Your task to perform on an android device: Go to Amazon Image 0: 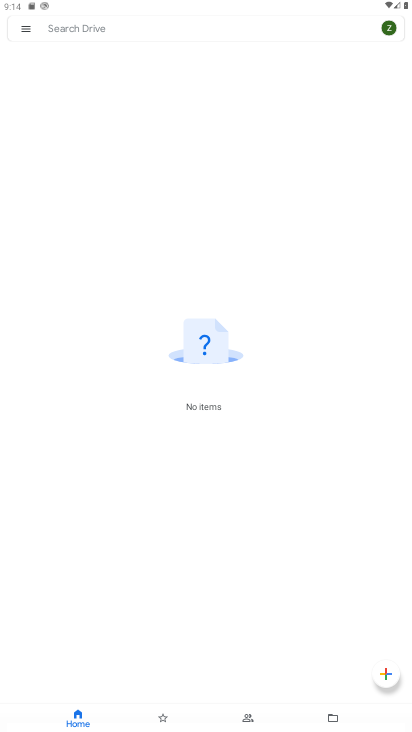
Step 0: press home button
Your task to perform on an android device: Go to Amazon Image 1: 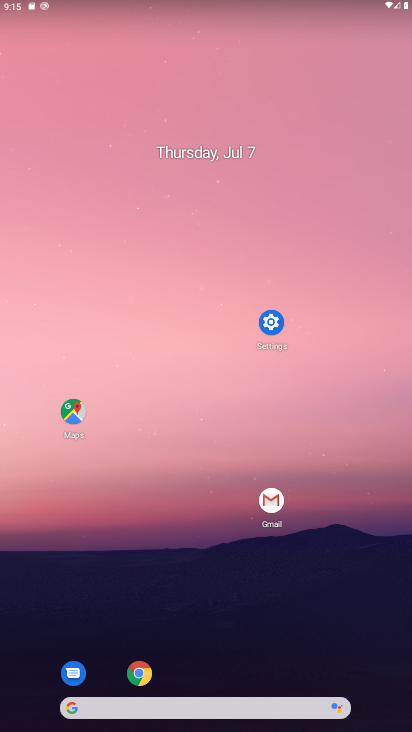
Step 1: click (263, 507)
Your task to perform on an android device: Go to Amazon Image 2: 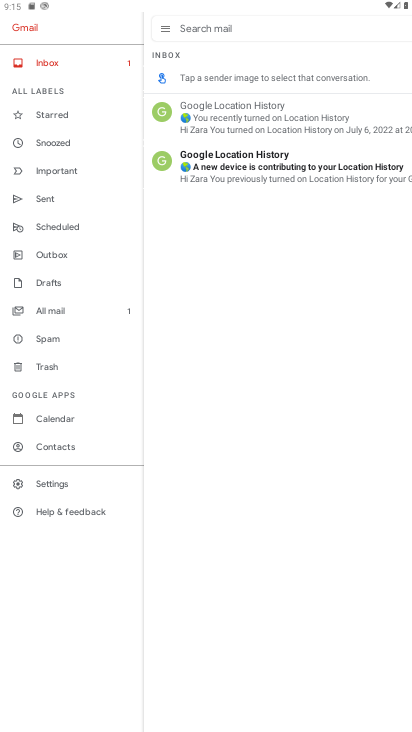
Step 2: press back button
Your task to perform on an android device: Go to Amazon Image 3: 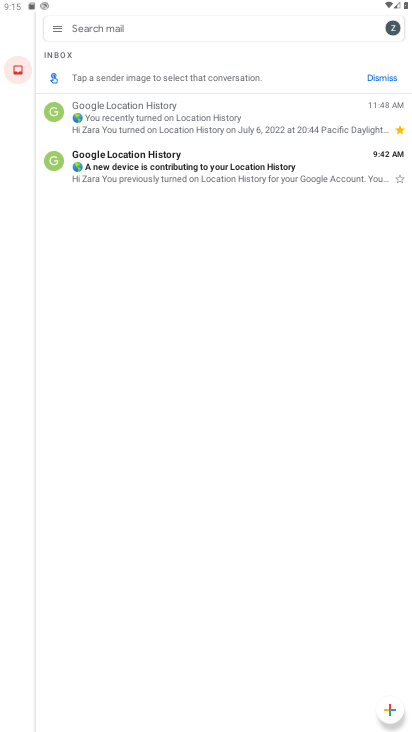
Step 3: press back button
Your task to perform on an android device: Go to Amazon Image 4: 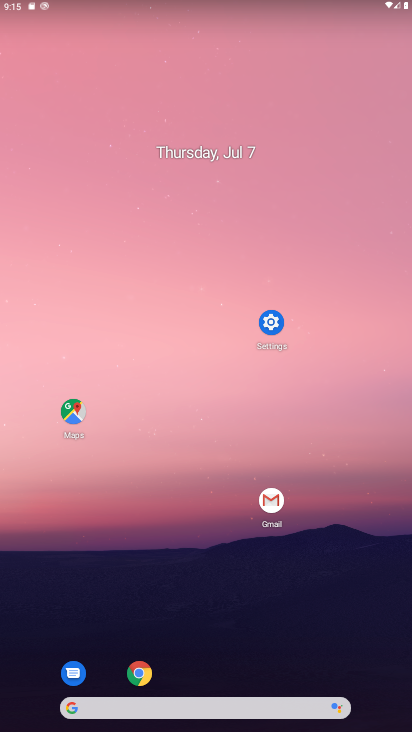
Step 4: click (139, 673)
Your task to perform on an android device: Go to Amazon Image 5: 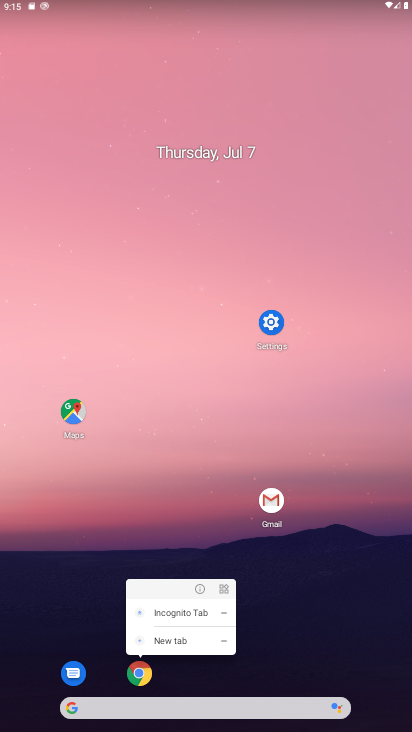
Step 5: click (139, 673)
Your task to perform on an android device: Go to Amazon Image 6: 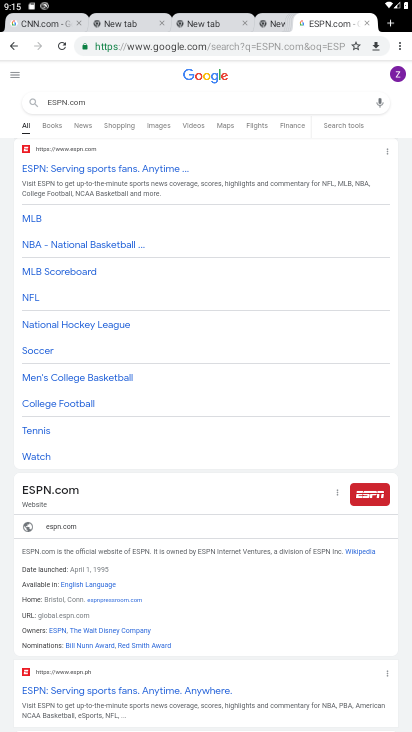
Step 6: click (315, 47)
Your task to perform on an android device: Go to Amazon Image 7: 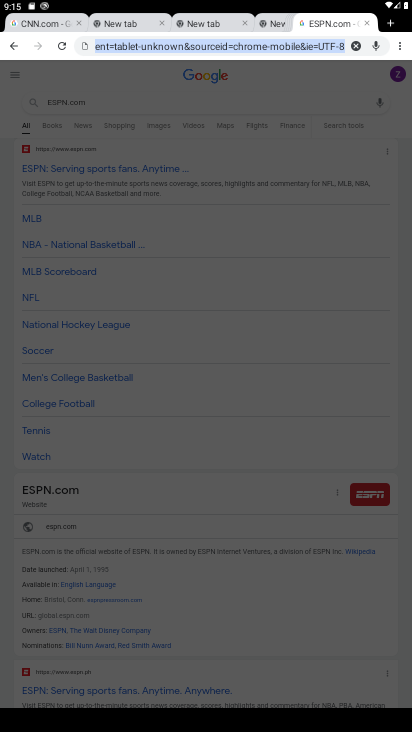
Step 7: click (349, 43)
Your task to perform on an android device: Go to Amazon Image 8: 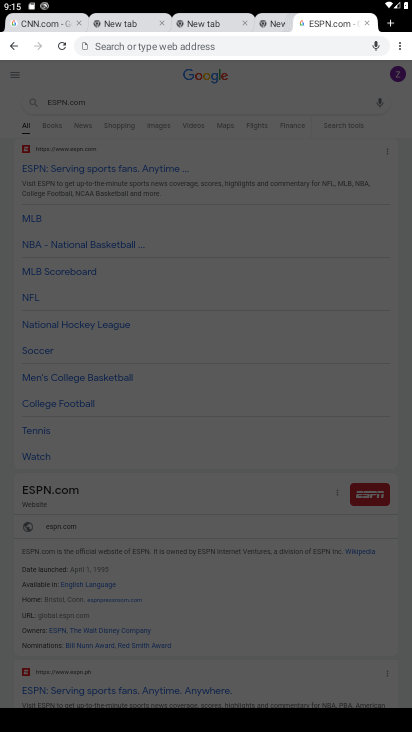
Step 8: type "Amazon"
Your task to perform on an android device: Go to Amazon Image 9: 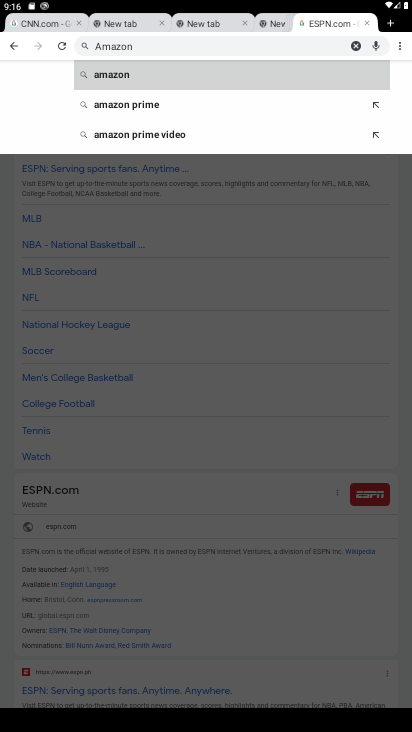
Step 9: click (122, 68)
Your task to perform on an android device: Go to Amazon Image 10: 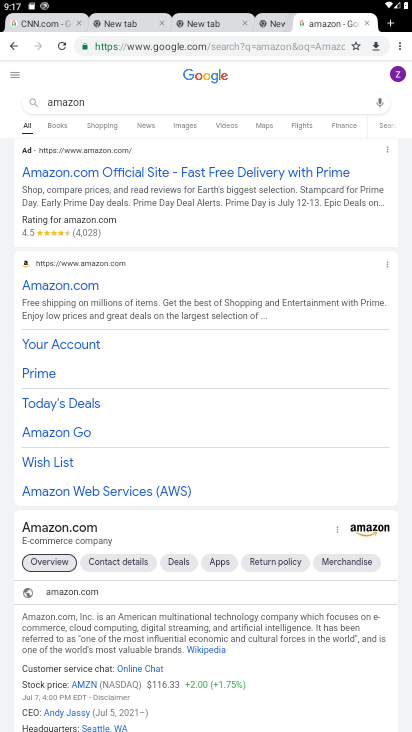
Step 10: task complete